Your task to perform on an android device: Open Google Image 0: 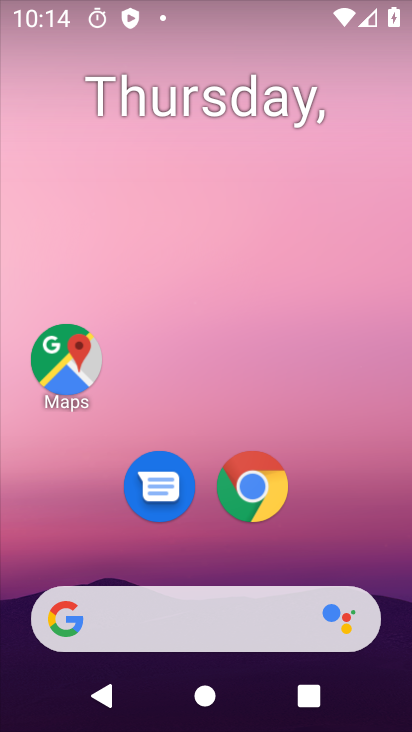
Step 0: click (369, 191)
Your task to perform on an android device: Open Google Image 1: 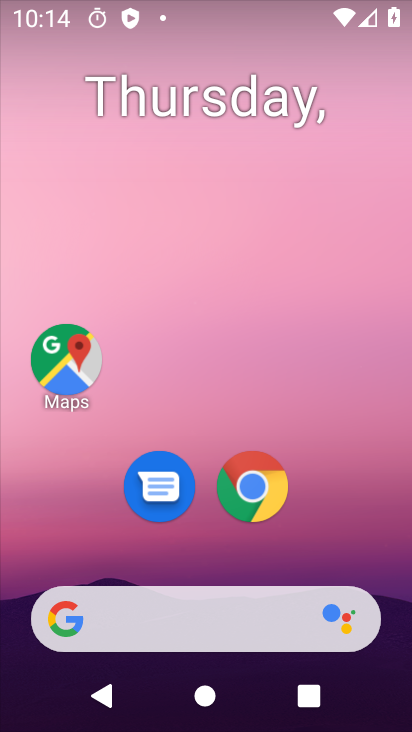
Step 1: click (387, 165)
Your task to perform on an android device: Open Google Image 2: 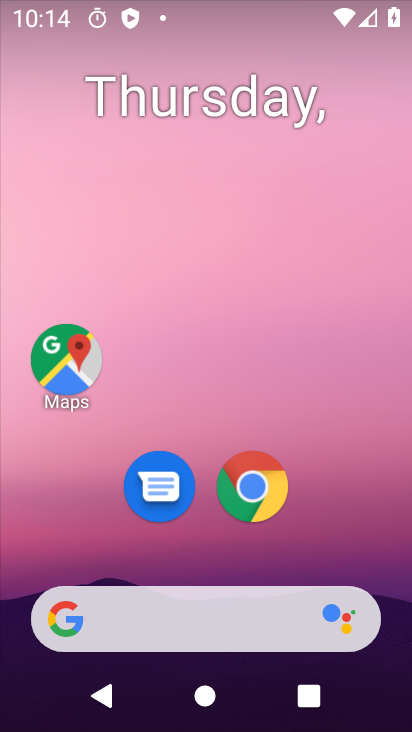
Step 2: click (396, 50)
Your task to perform on an android device: Open Google Image 3: 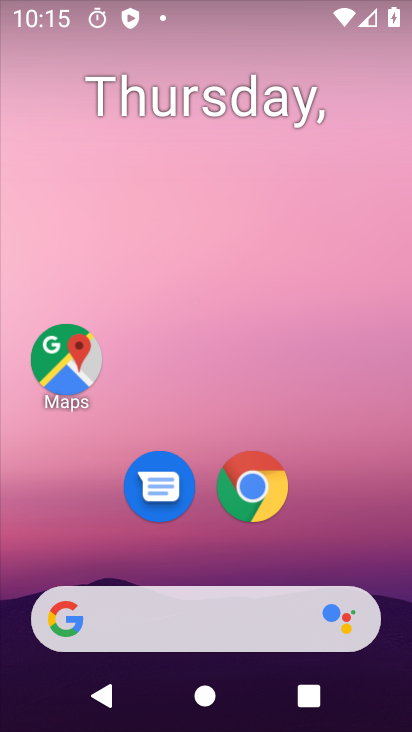
Step 3: drag from (395, 476) to (376, 148)
Your task to perform on an android device: Open Google Image 4: 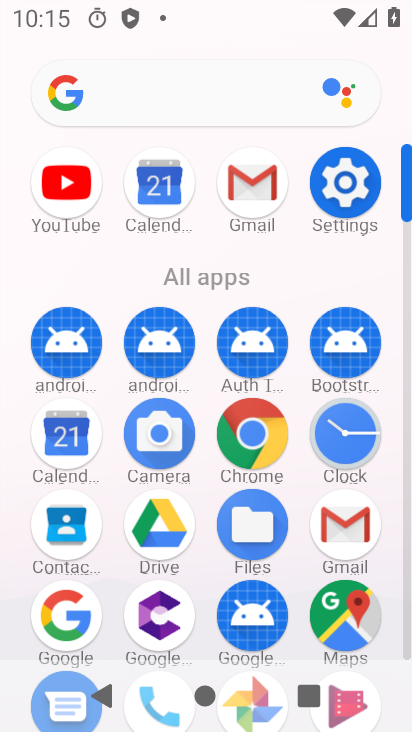
Step 4: click (56, 611)
Your task to perform on an android device: Open Google Image 5: 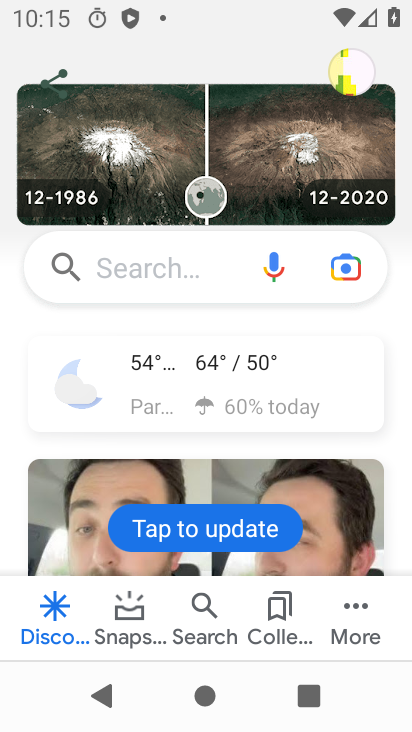
Step 5: task complete